Your task to perform on an android device: turn off translation in the chrome app Image 0: 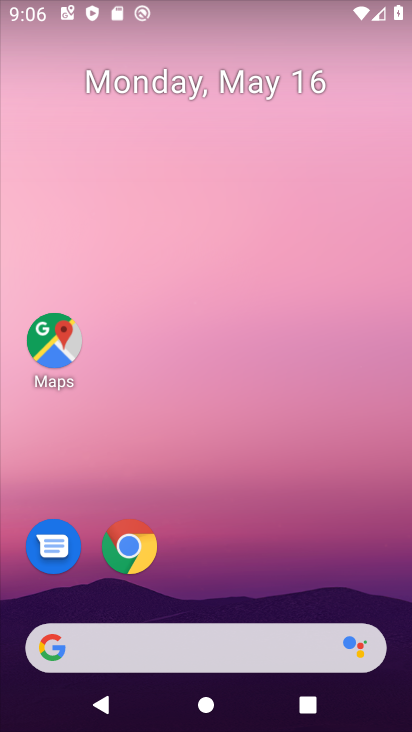
Step 0: drag from (294, 662) to (257, 251)
Your task to perform on an android device: turn off translation in the chrome app Image 1: 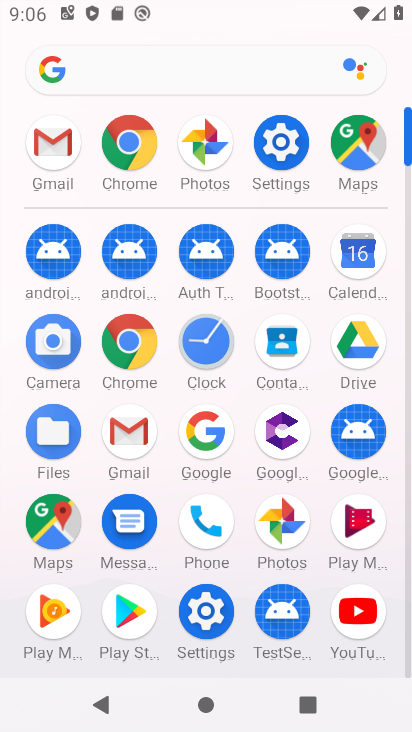
Step 1: click (116, 146)
Your task to perform on an android device: turn off translation in the chrome app Image 2: 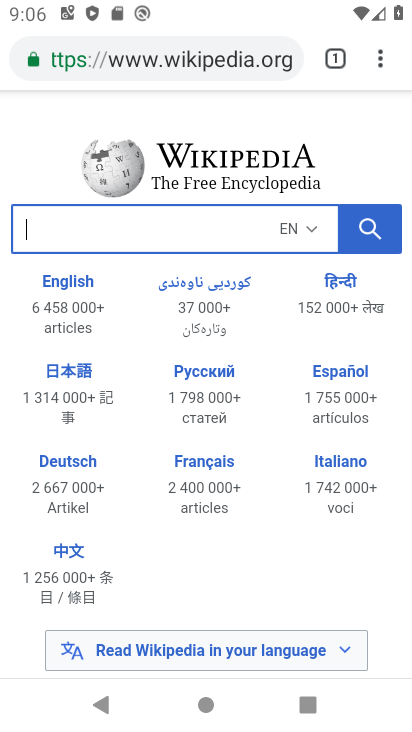
Step 2: click (374, 51)
Your task to perform on an android device: turn off translation in the chrome app Image 3: 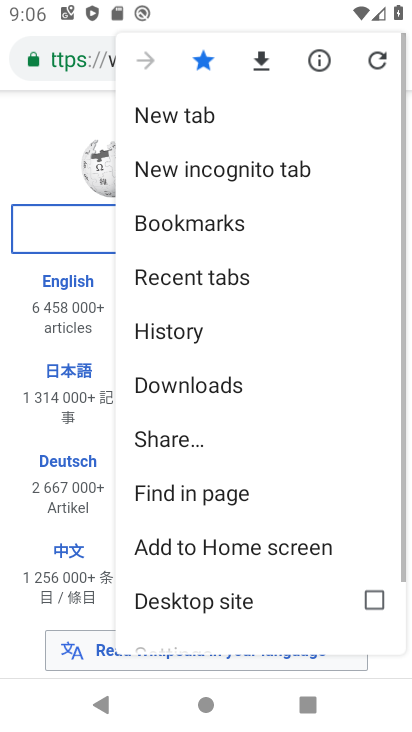
Step 3: drag from (236, 568) to (245, 344)
Your task to perform on an android device: turn off translation in the chrome app Image 4: 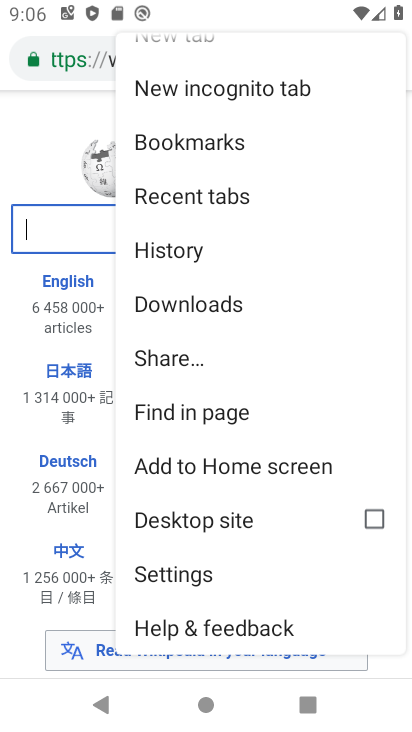
Step 4: click (198, 578)
Your task to perform on an android device: turn off translation in the chrome app Image 5: 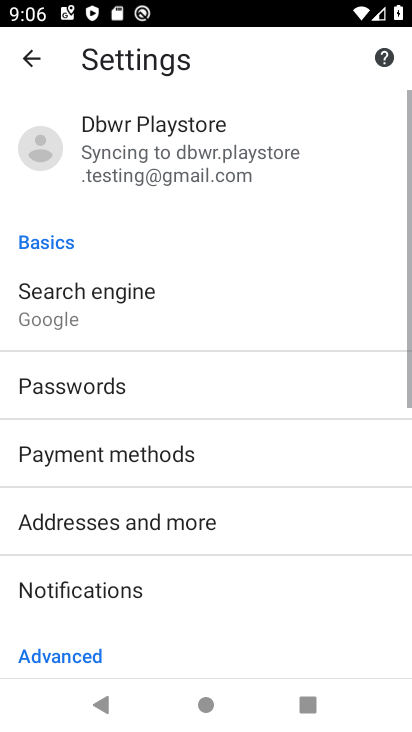
Step 5: drag from (200, 575) to (253, 372)
Your task to perform on an android device: turn off translation in the chrome app Image 6: 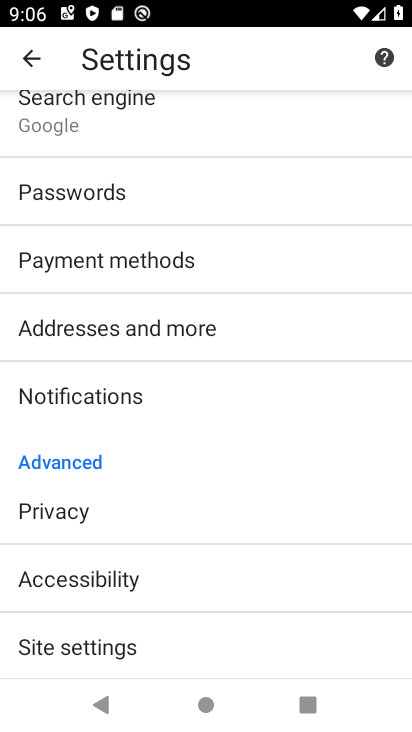
Step 6: drag from (147, 632) to (215, 435)
Your task to perform on an android device: turn off translation in the chrome app Image 7: 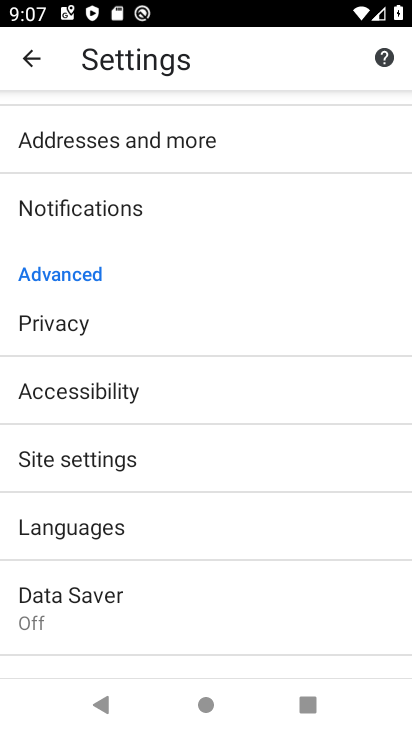
Step 7: click (103, 526)
Your task to perform on an android device: turn off translation in the chrome app Image 8: 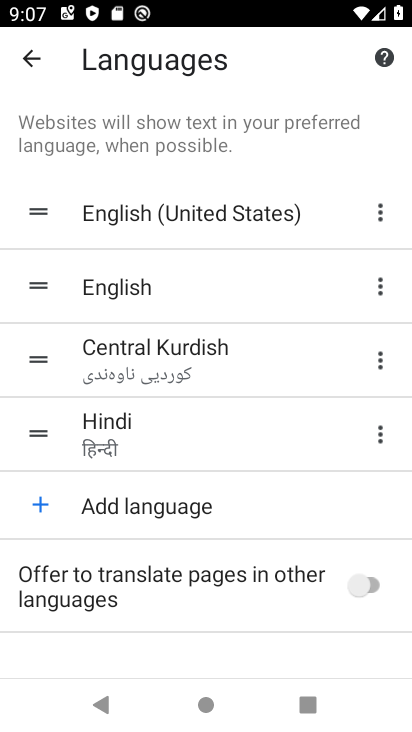
Step 8: click (367, 577)
Your task to perform on an android device: turn off translation in the chrome app Image 9: 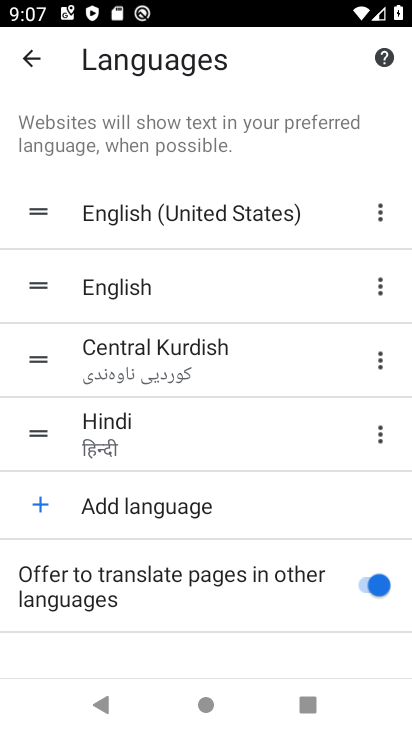
Step 9: click (355, 587)
Your task to perform on an android device: turn off translation in the chrome app Image 10: 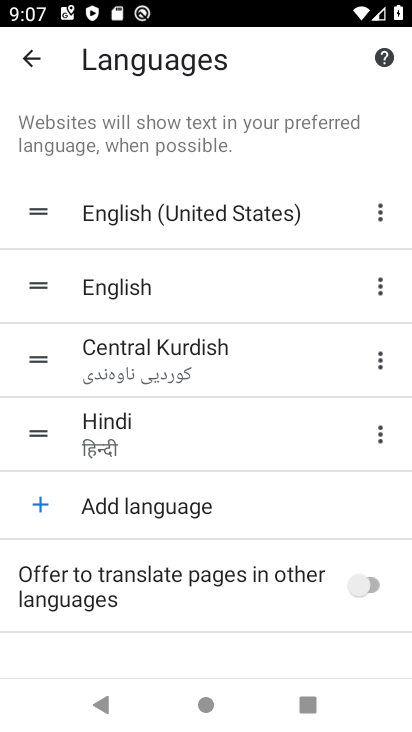
Step 10: task complete